Your task to perform on an android device: Open wifi settings Image 0: 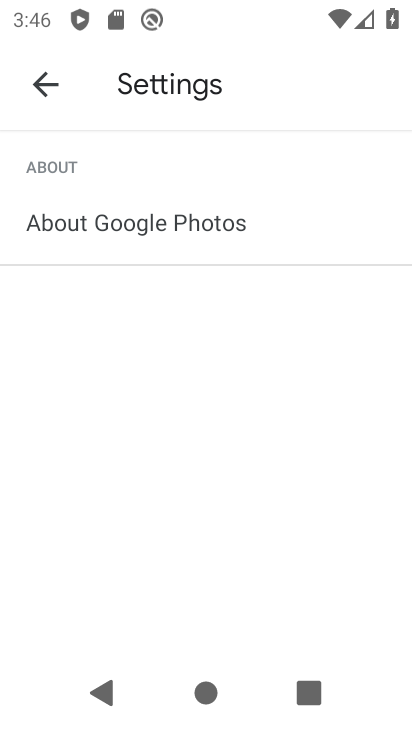
Step 0: drag from (98, 6) to (178, 452)
Your task to perform on an android device: Open wifi settings Image 1: 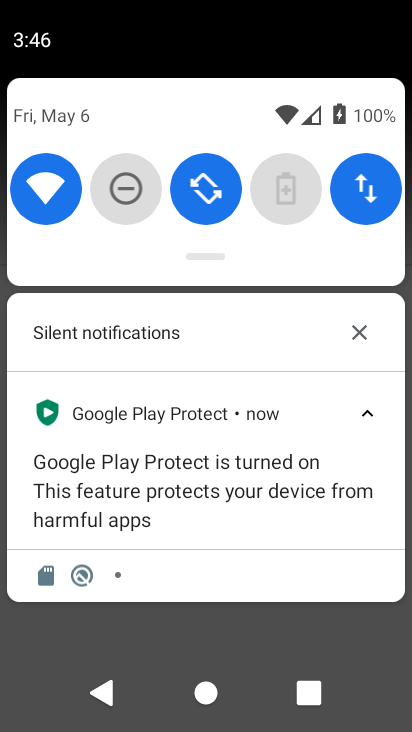
Step 1: click (61, 193)
Your task to perform on an android device: Open wifi settings Image 2: 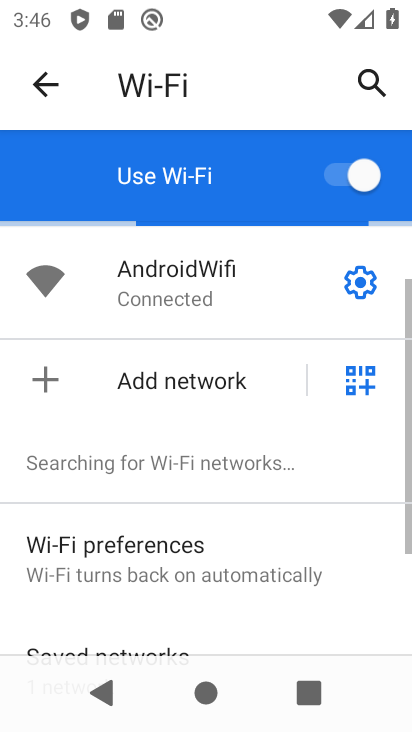
Step 2: task complete